Your task to perform on an android device: check the backup settings in the google photos Image 0: 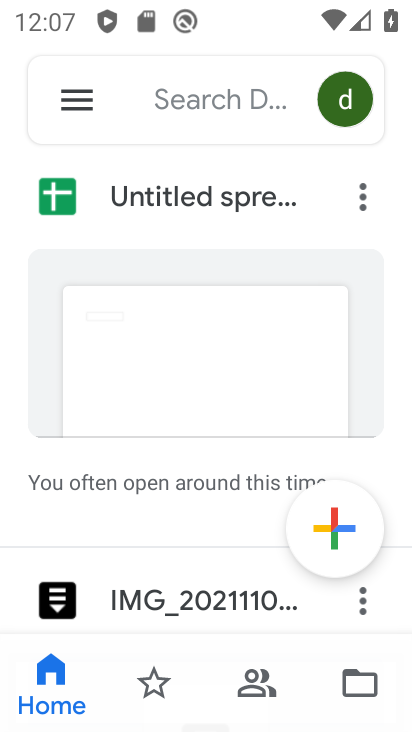
Step 0: press home button
Your task to perform on an android device: check the backup settings in the google photos Image 1: 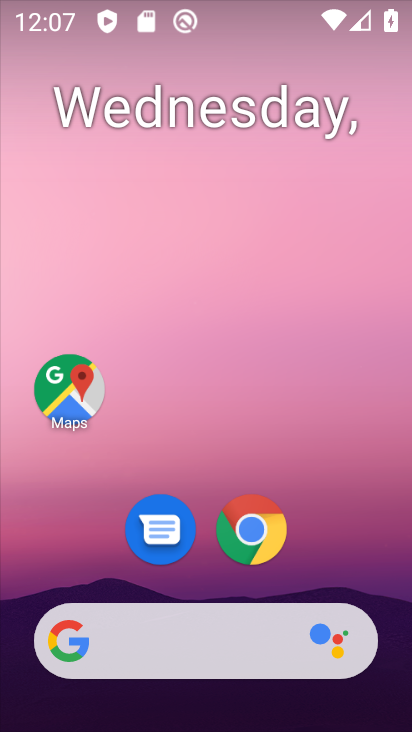
Step 1: drag from (399, 623) to (275, 30)
Your task to perform on an android device: check the backup settings in the google photos Image 2: 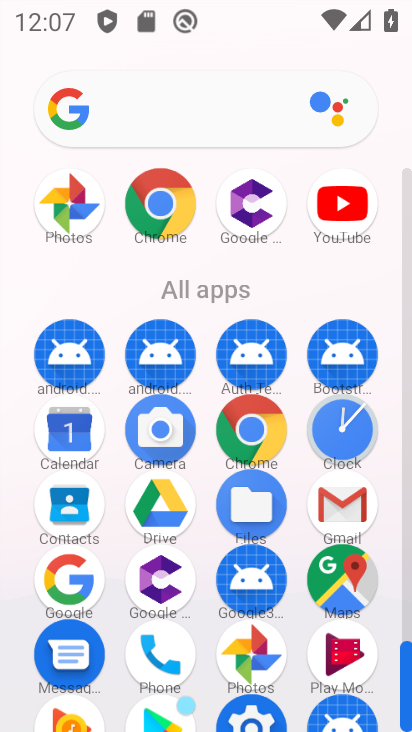
Step 2: click (250, 655)
Your task to perform on an android device: check the backup settings in the google photos Image 3: 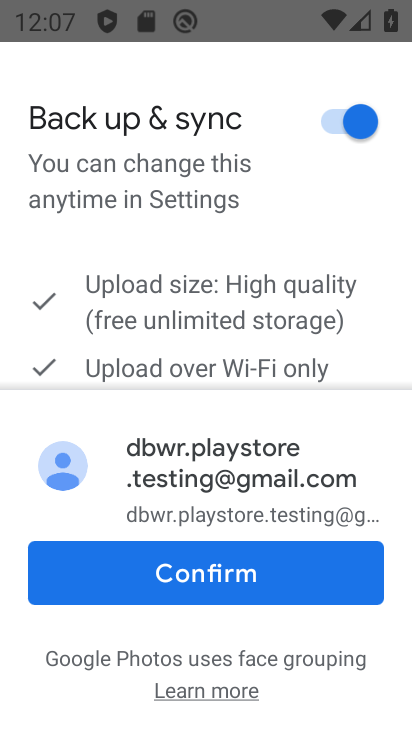
Step 3: click (174, 568)
Your task to perform on an android device: check the backup settings in the google photos Image 4: 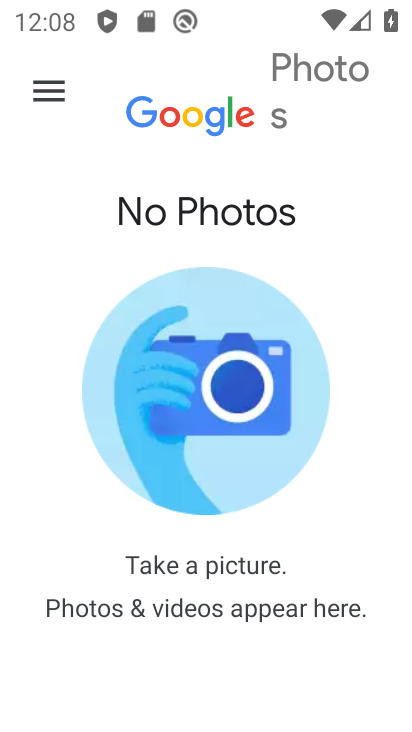
Step 4: click (50, 86)
Your task to perform on an android device: check the backup settings in the google photos Image 5: 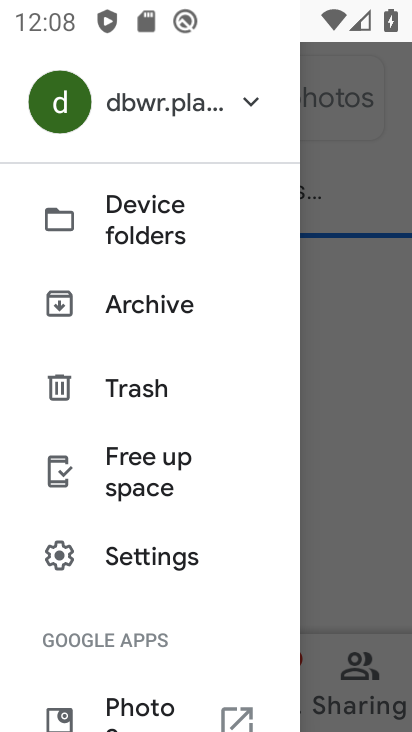
Step 5: click (156, 541)
Your task to perform on an android device: check the backup settings in the google photos Image 6: 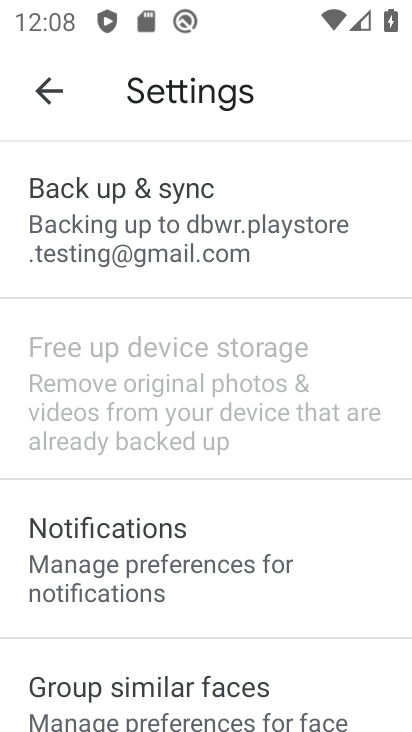
Step 6: click (141, 218)
Your task to perform on an android device: check the backup settings in the google photos Image 7: 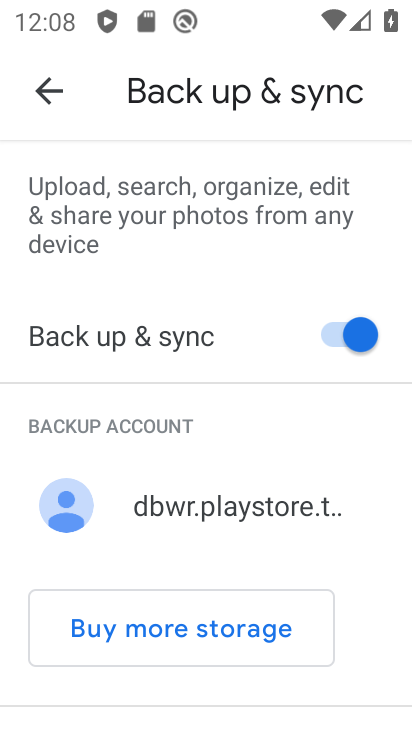
Step 7: task complete